Your task to perform on an android device: Open Amazon Image 0: 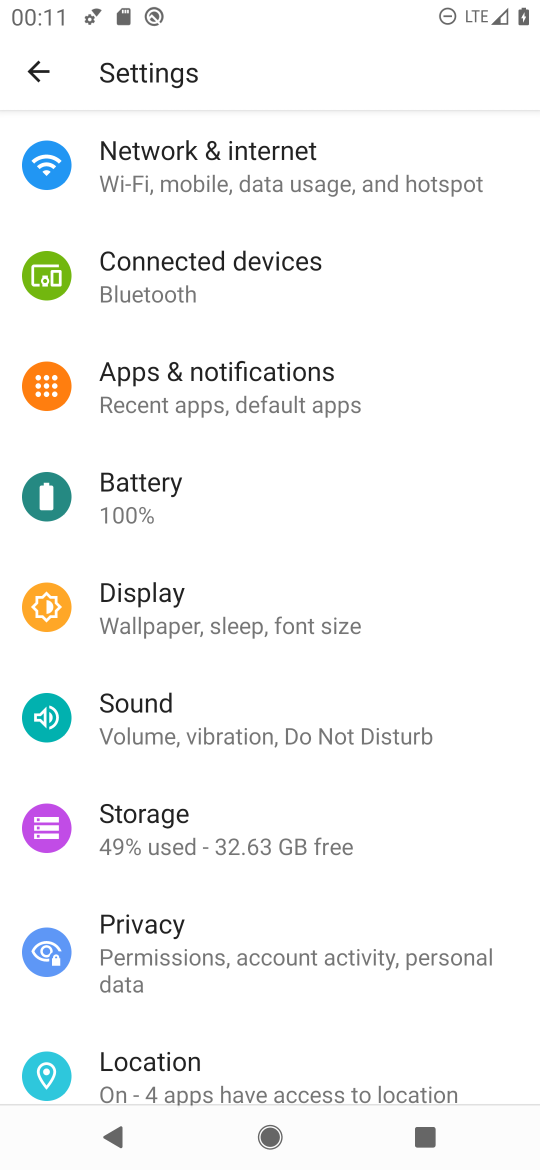
Step 0: press home button
Your task to perform on an android device: Open Amazon Image 1: 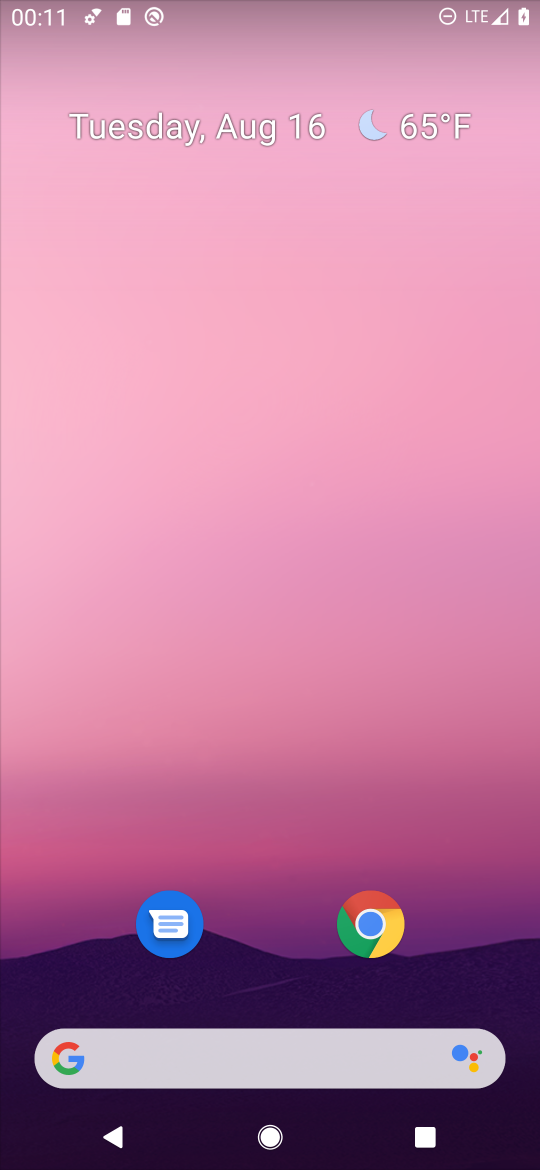
Step 1: click (374, 939)
Your task to perform on an android device: Open Amazon Image 2: 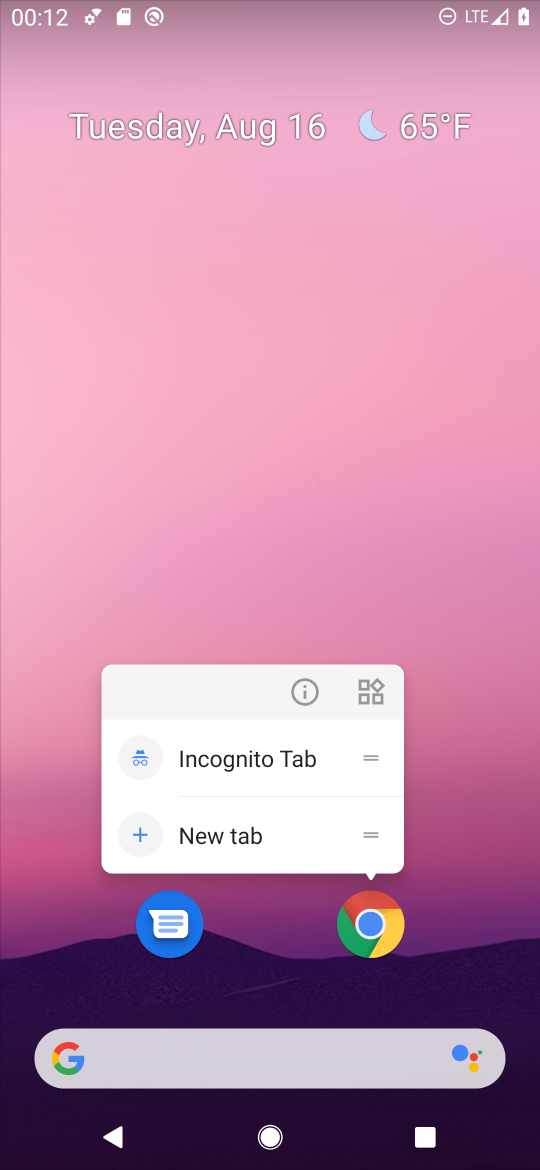
Step 2: click (374, 939)
Your task to perform on an android device: Open Amazon Image 3: 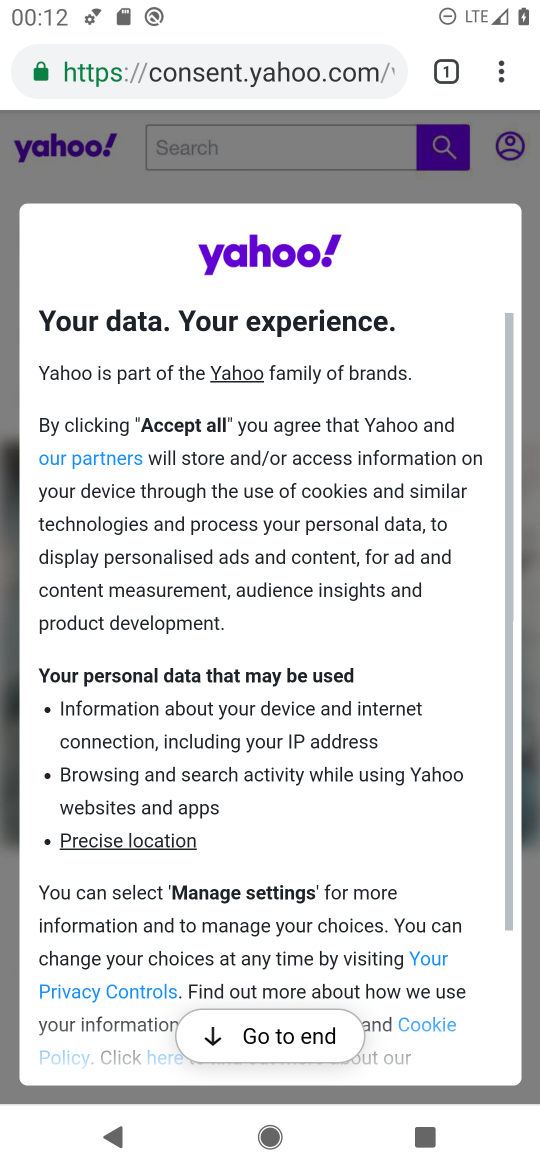
Step 3: click (448, 79)
Your task to perform on an android device: Open Amazon Image 4: 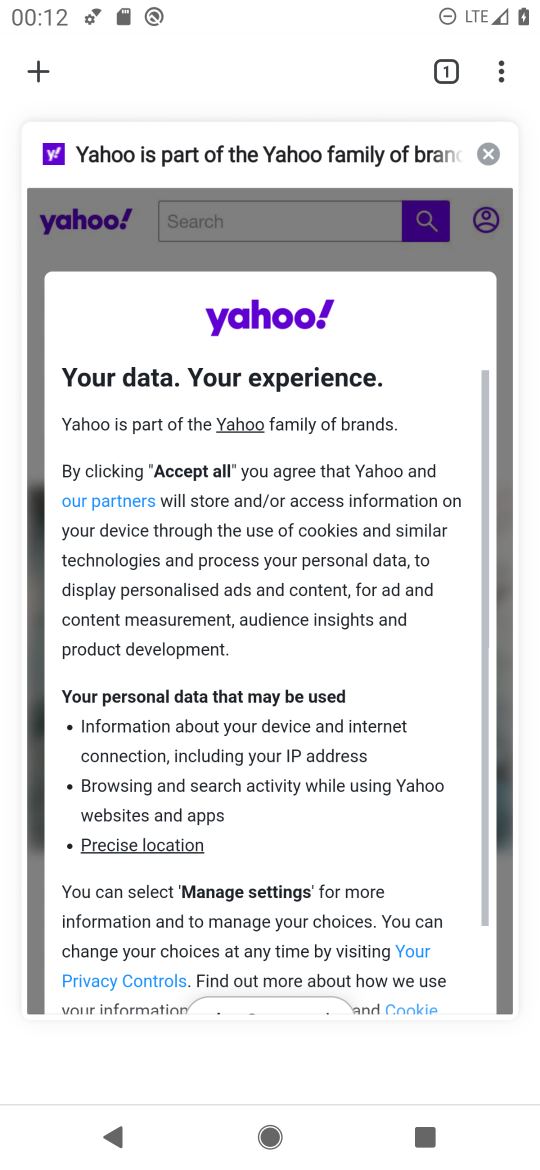
Step 4: click (490, 159)
Your task to perform on an android device: Open Amazon Image 5: 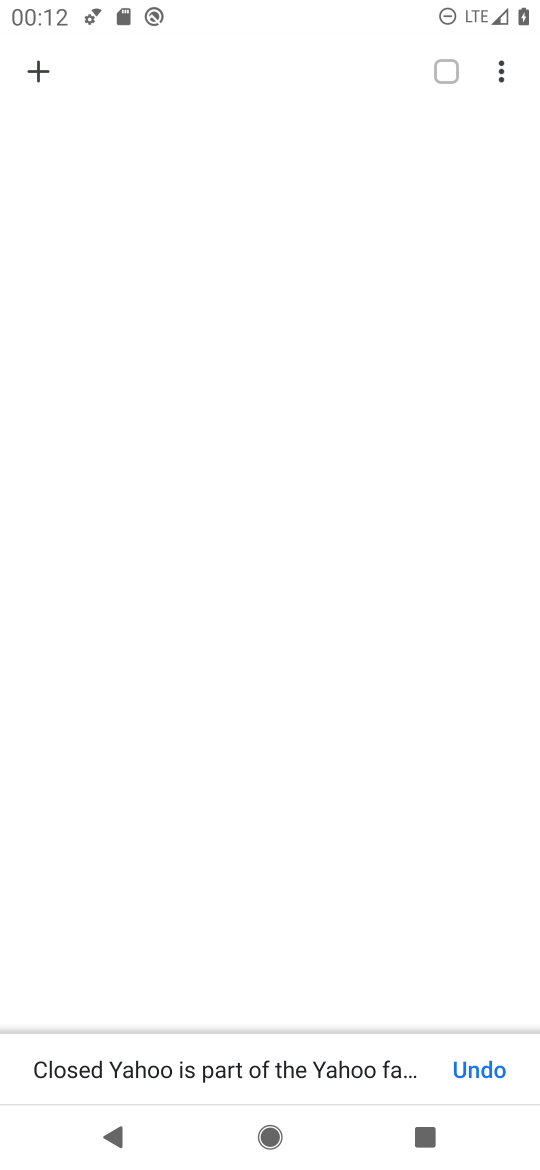
Step 5: click (35, 82)
Your task to perform on an android device: Open Amazon Image 6: 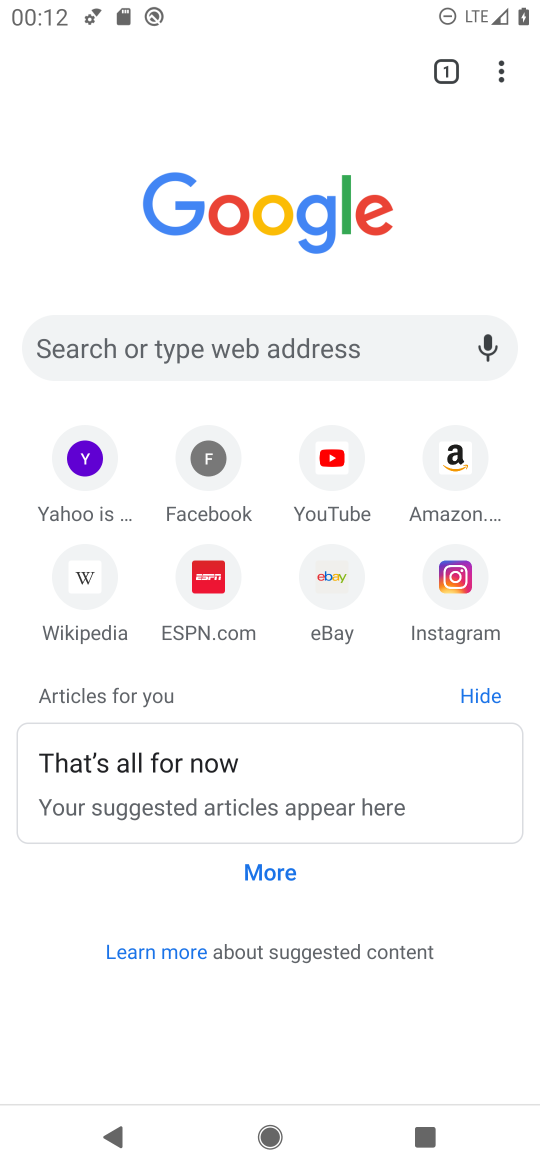
Step 6: click (461, 467)
Your task to perform on an android device: Open Amazon Image 7: 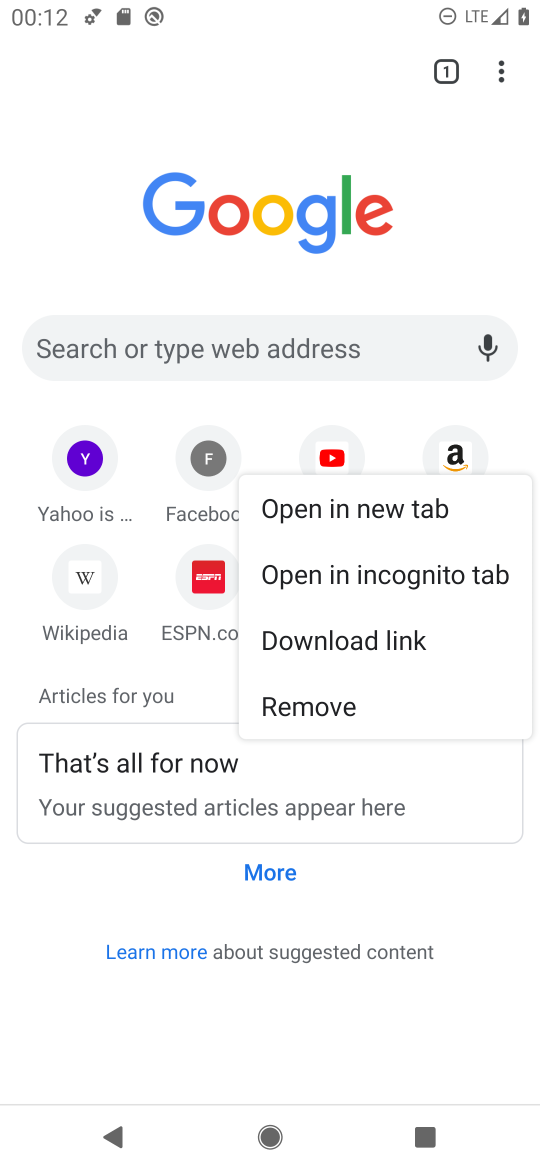
Step 7: click (461, 467)
Your task to perform on an android device: Open Amazon Image 8: 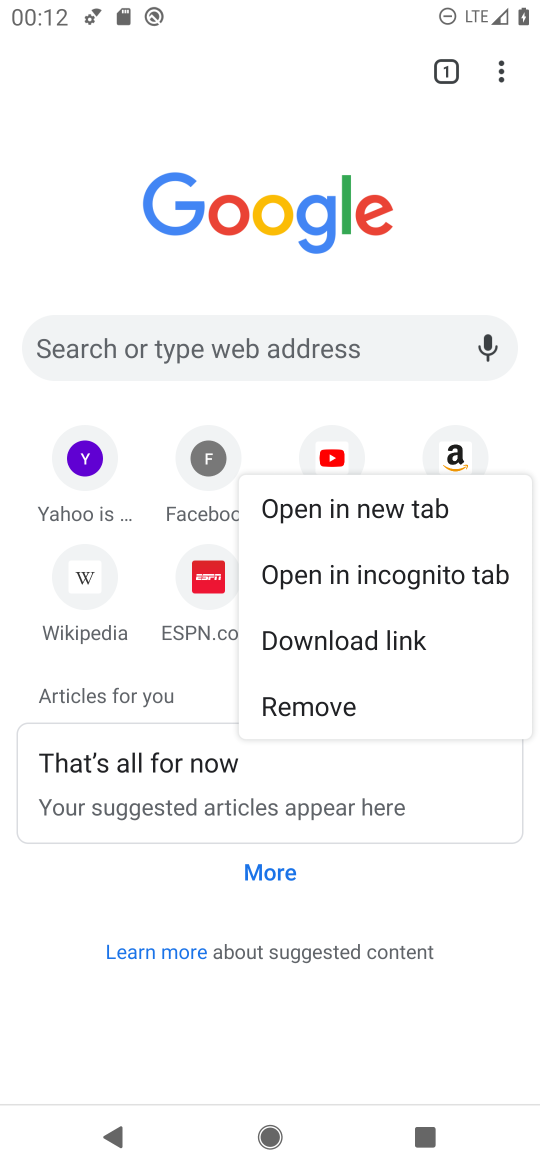
Step 8: click (454, 455)
Your task to perform on an android device: Open Amazon Image 9: 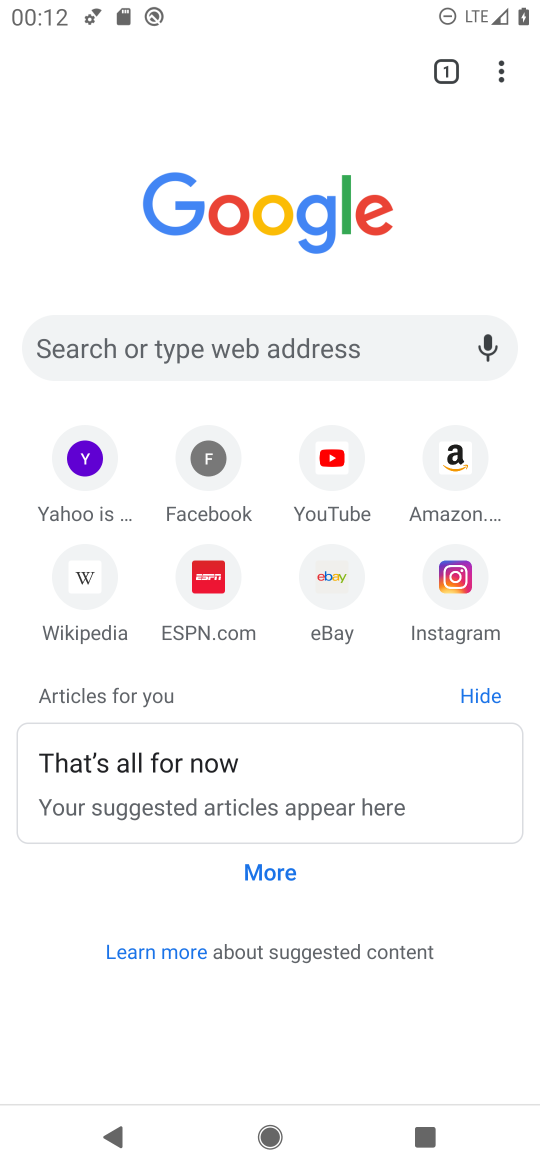
Step 9: click (454, 455)
Your task to perform on an android device: Open Amazon Image 10: 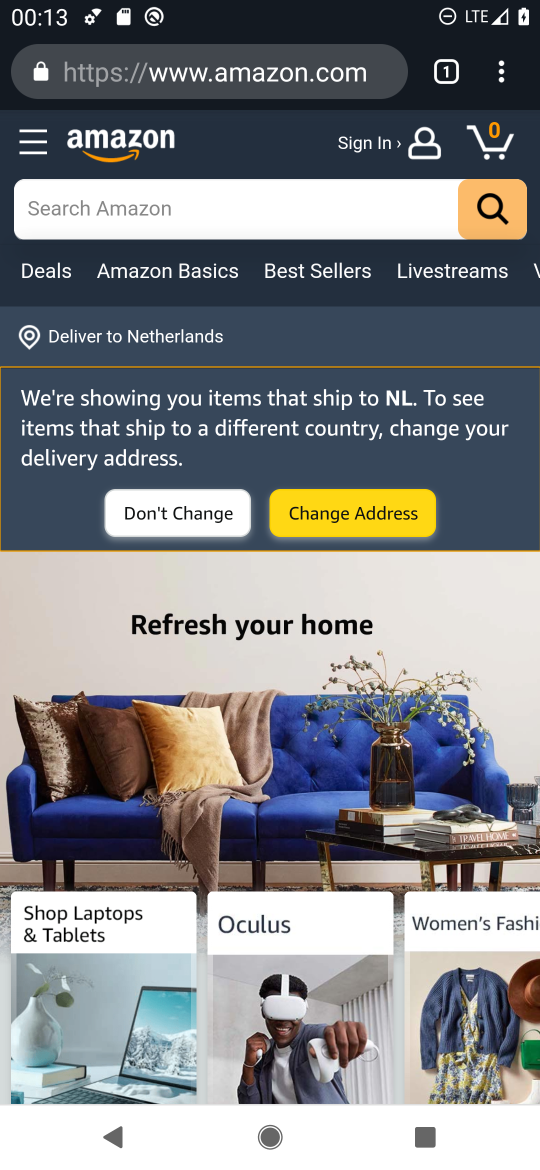
Step 10: task complete